Your task to perform on an android device: Open Android settings Image 0: 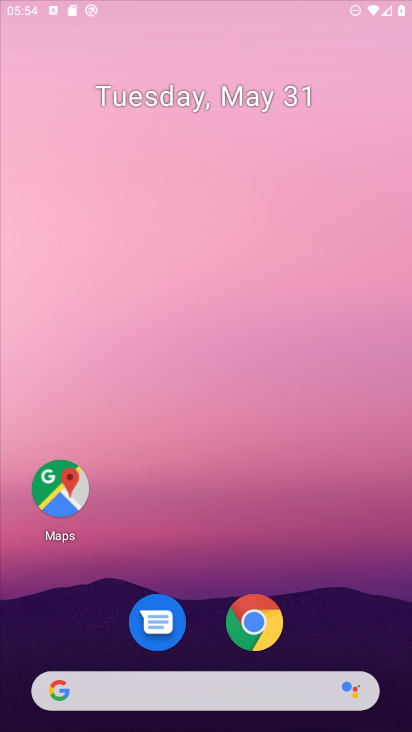
Step 0: drag from (305, 665) to (334, 112)
Your task to perform on an android device: Open Android settings Image 1: 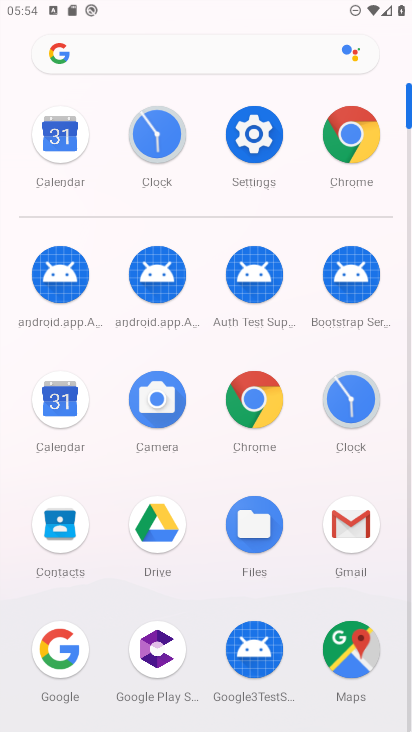
Step 1: click (244, 143)
Your task to perform on an android device: Open Android settings Image 2: 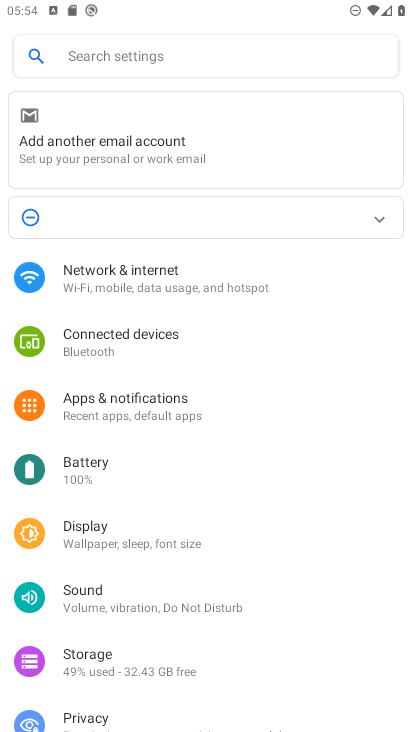
Step 2: drag from (132, 664) to (222, 17)
Your task to perform on an android device: Open Android settings Image 3: 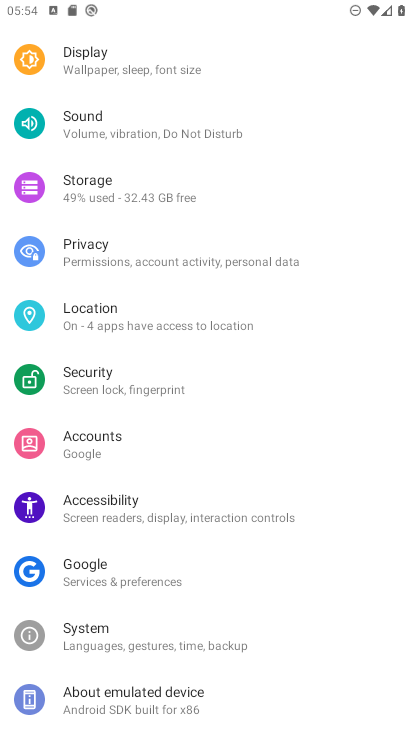
Step 3: click (199, 707)
Your task to perform on an android device: Open Android settings Image 4: 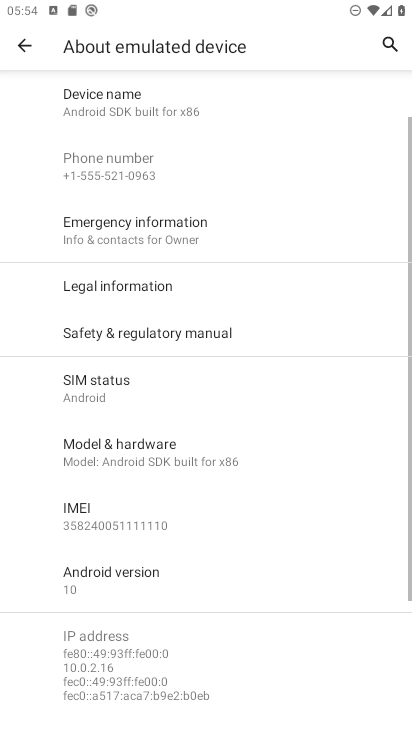
Step 4: task complete